Your task to perform on an android device: empty trash in google photos Image 0: 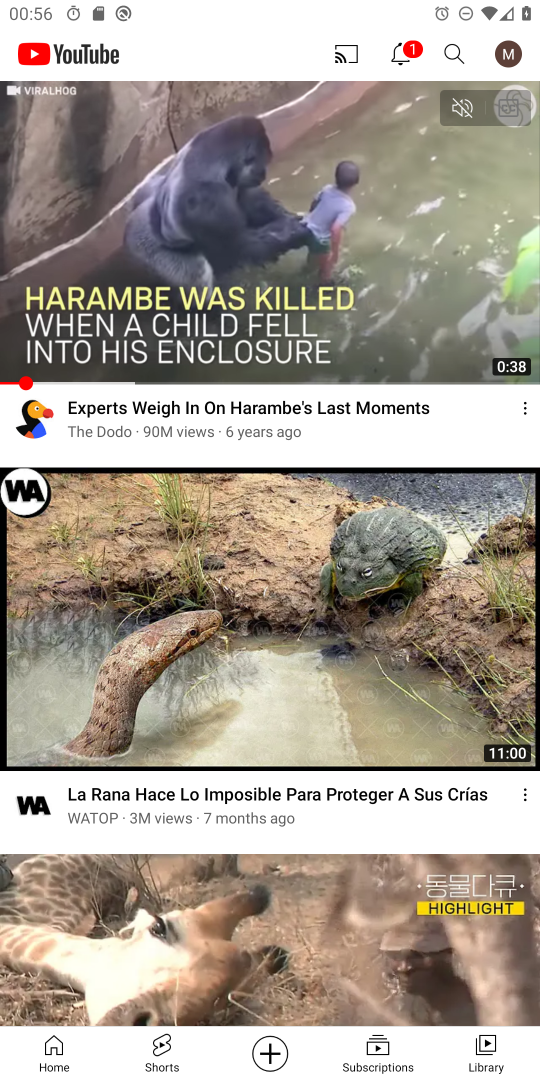
Step 0: press home button
Your task to perform on an android device: empty trash in google photos Image 1: 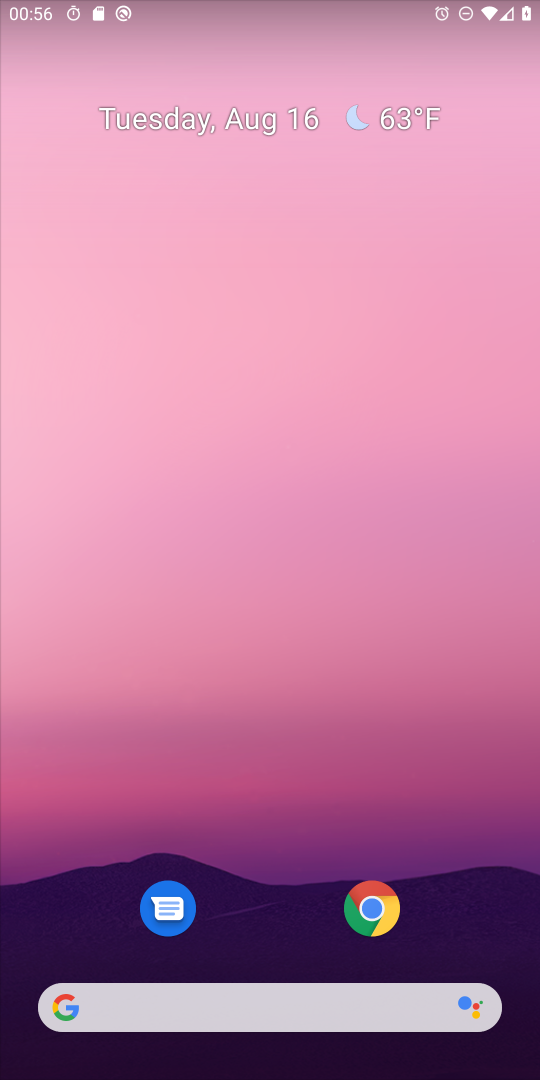
Step 1: drag from (250, 950) to (305, 109)
Your task to perform on an android device: empty trash in google photos Image 2: 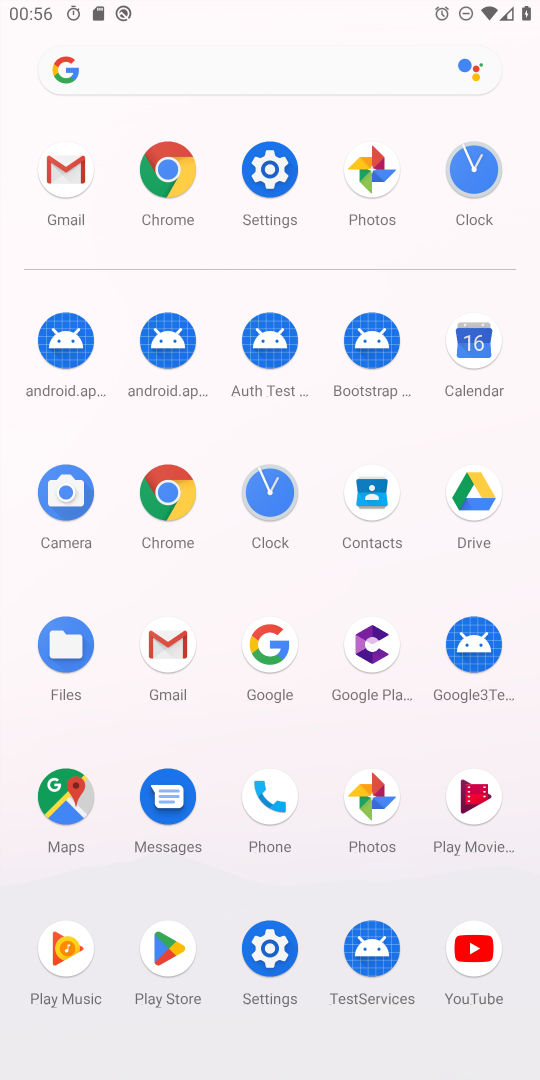
Step 2: click (377, 146)
Your task to perform on an android device: empty trash in google photos Image 3: 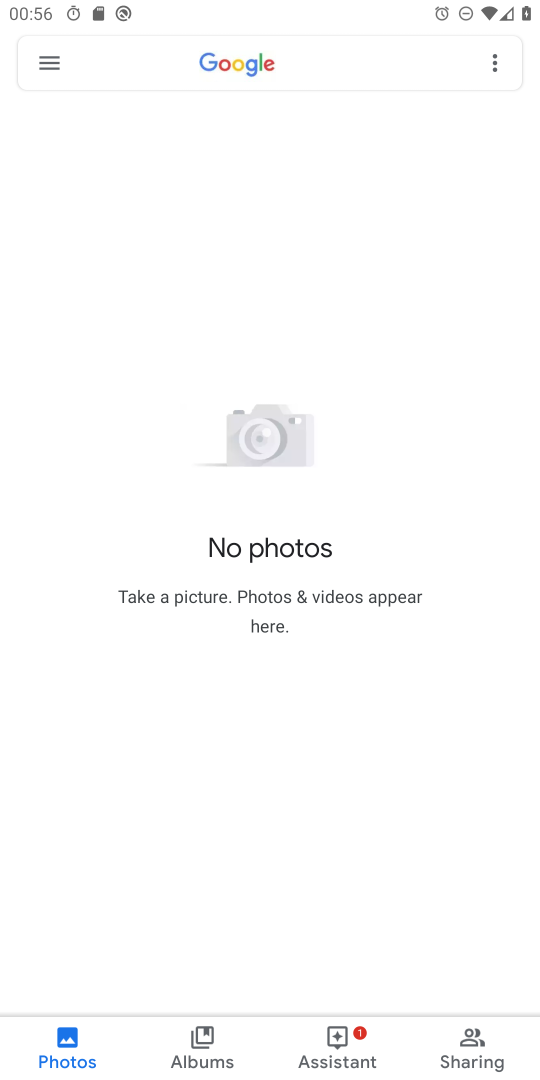
Step 3: click (66, 67)
Your task to perform on an android device: empty trash in google photos Image 4: 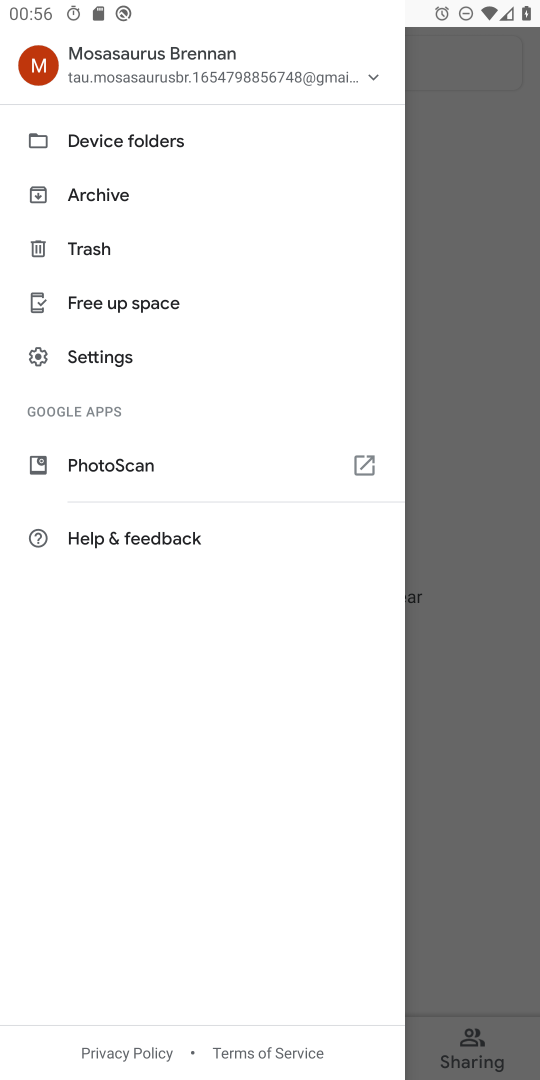
Step 4: click (122, 251)
Your task to perform on an android device: empty trash in google photos Image 5: 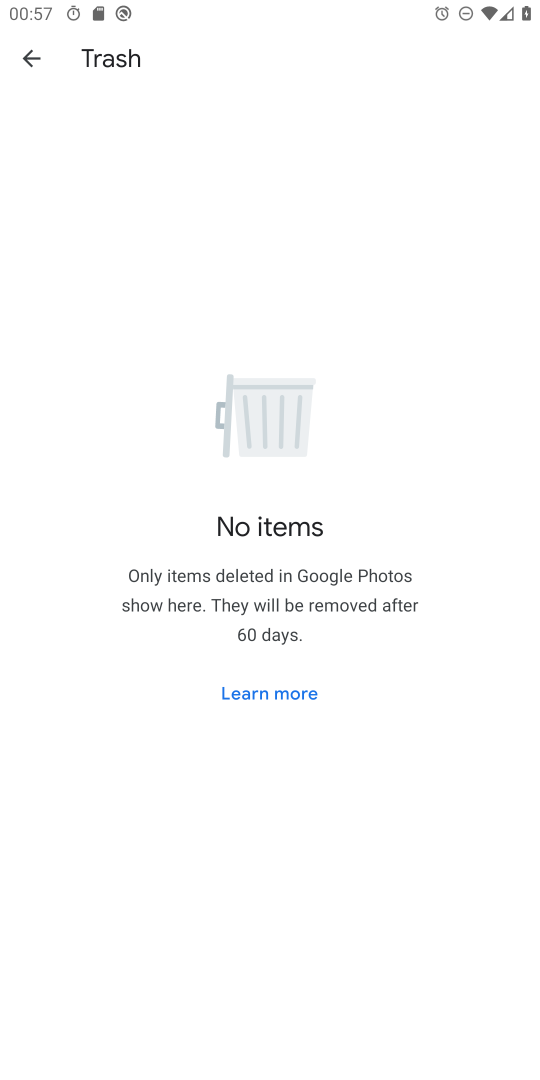
Step 5: task complete